Your task to perform on an android device: Go to settings Image 0: 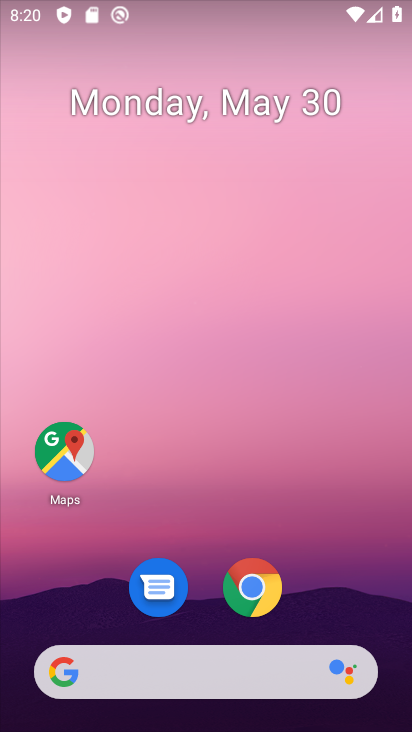
Step 0: drag from (204, 579) to (248, 60)
Your task to perform on an android device: Go to settings Image 1: 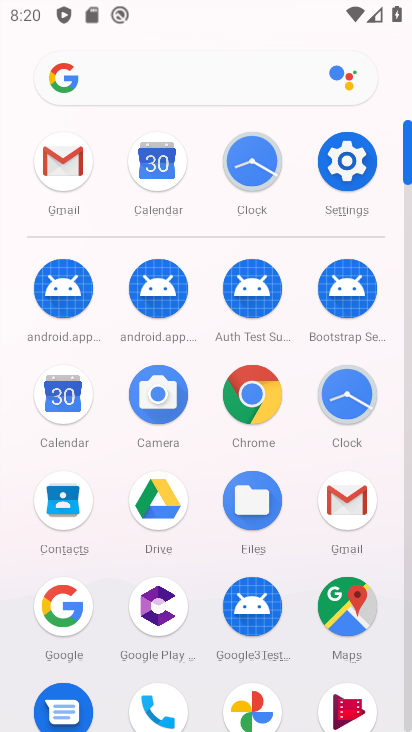
Step 1: click (346, 160)
Your task to perform on an android device: Go to settings Image 2: 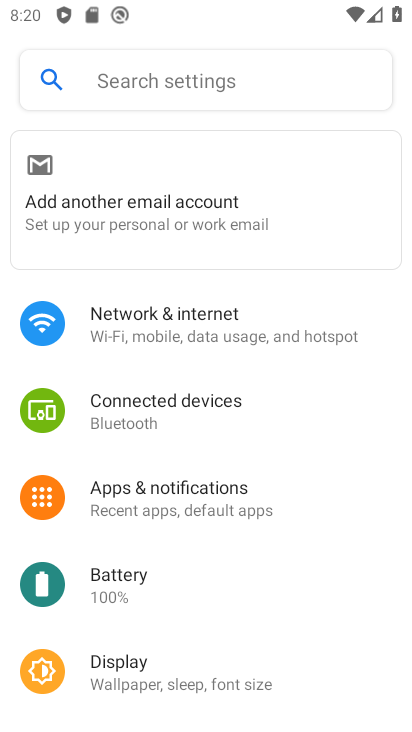
Step 2: task complete